Your task to perform on an android device: Play the last video I watched on Youtube Image 0: 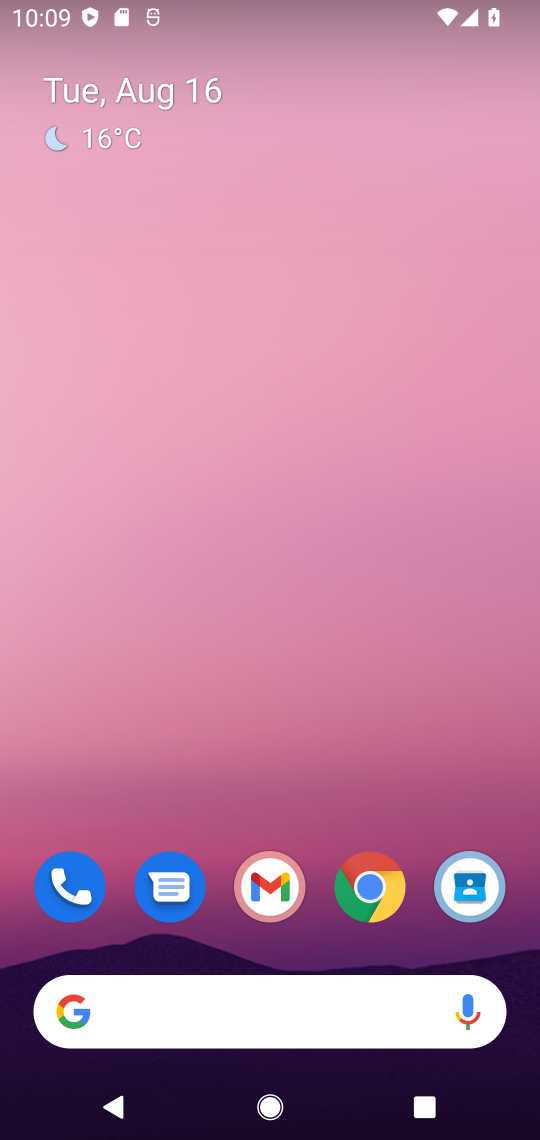
Step 0: drag from (386, 406) to (408, 150)
Your task to perform on an android device: Play the last video I watched on Youtube Image 1: 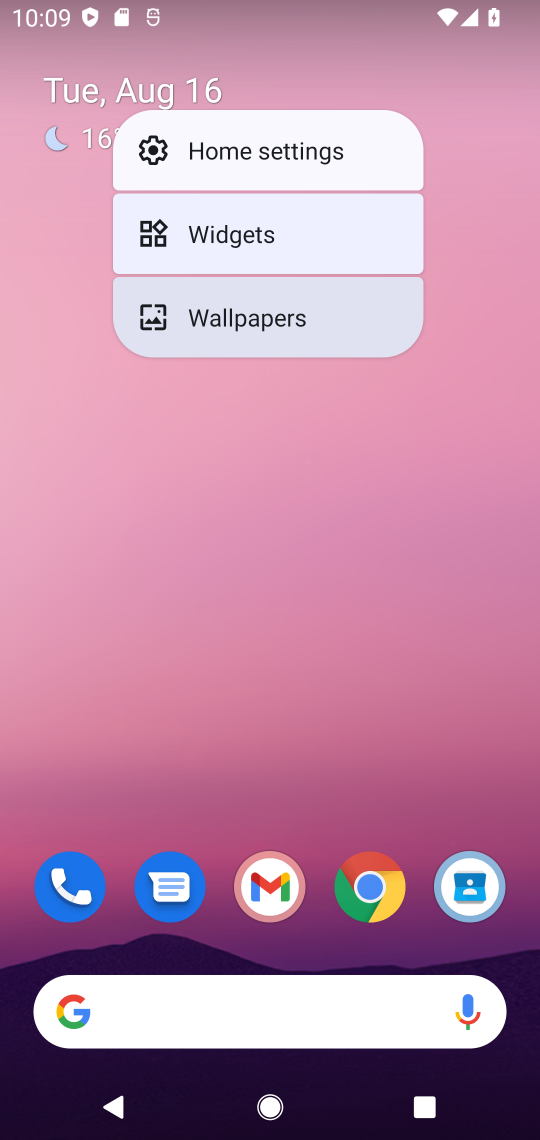
Step 1: click (412, 681)
Your task to perform on an android device: Play the last video I watched on Youtube Image 2: 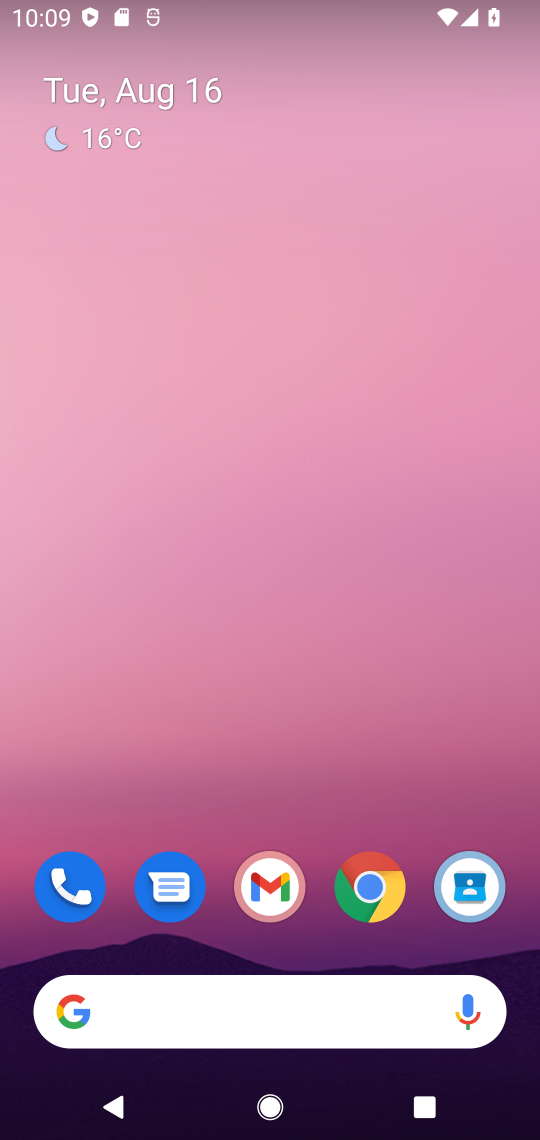
Step 2: drag from (420, 800) to (415, 188)
Your task to perform on an android device: Play the last video I watched on Youtube Image 3: 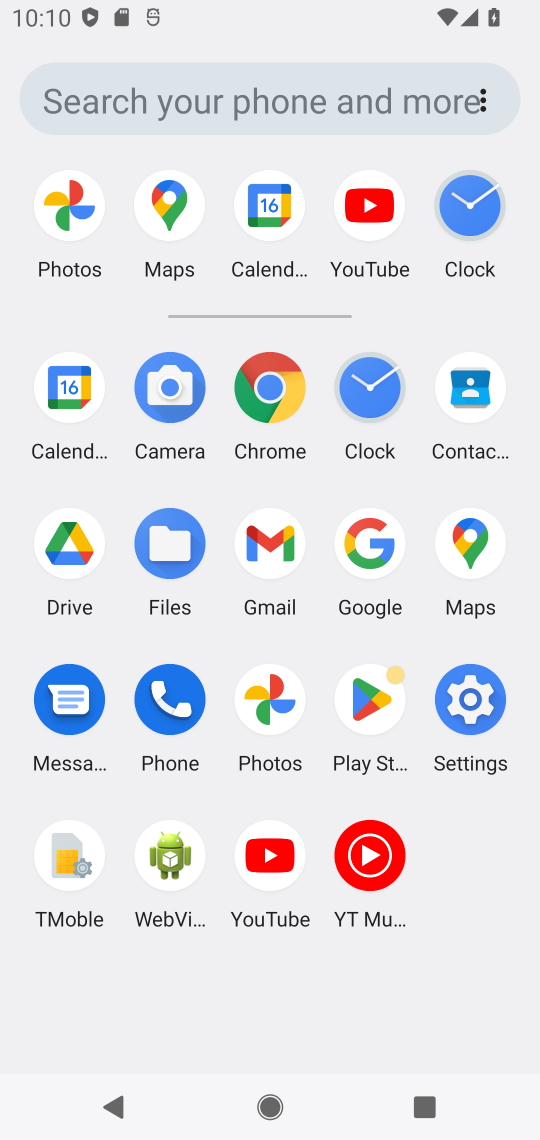
Step 3: click (270, 861)
Your task to perform on an android device: Play the last video I watched on Youtube Image 4: 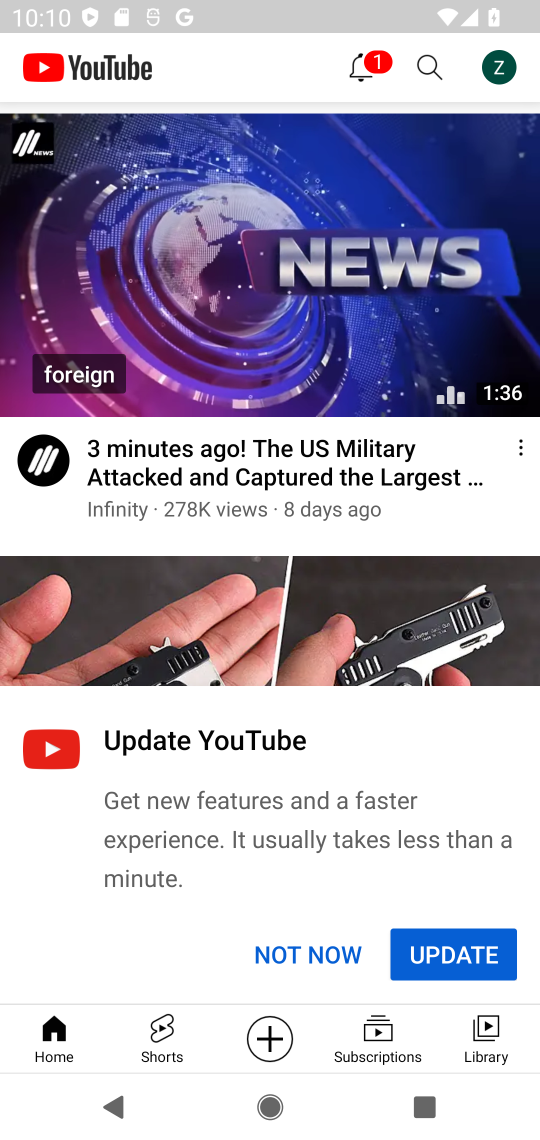
Step 4: click (485, 1045)
Your task to perform on an android device: Play the last video I watched on Youtube Image 5: 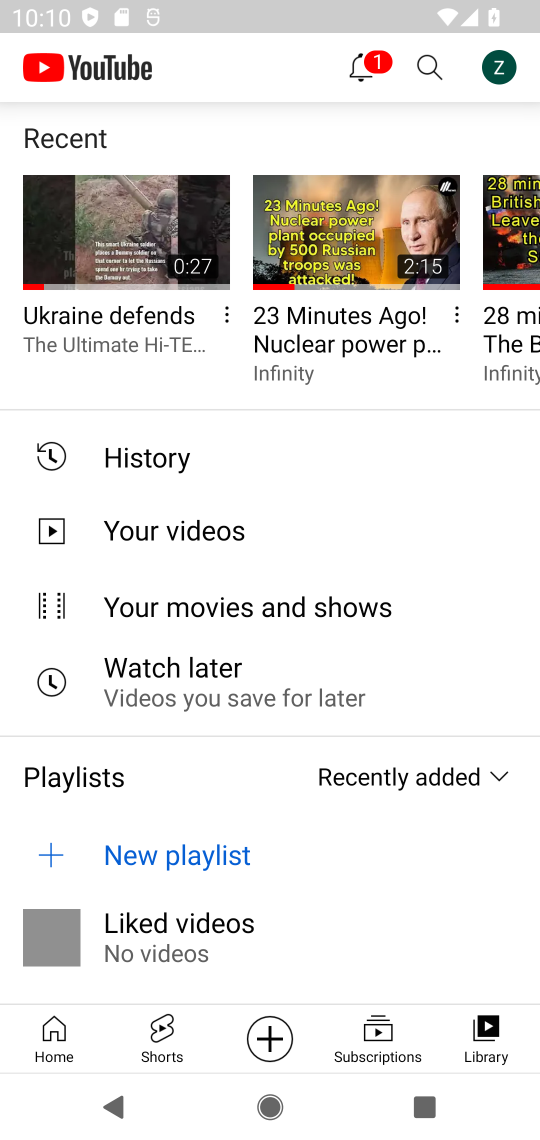
Step 5: click (131, 238)
Your task to perform on an android device: Play the last video I watched on Youtube Image 6: 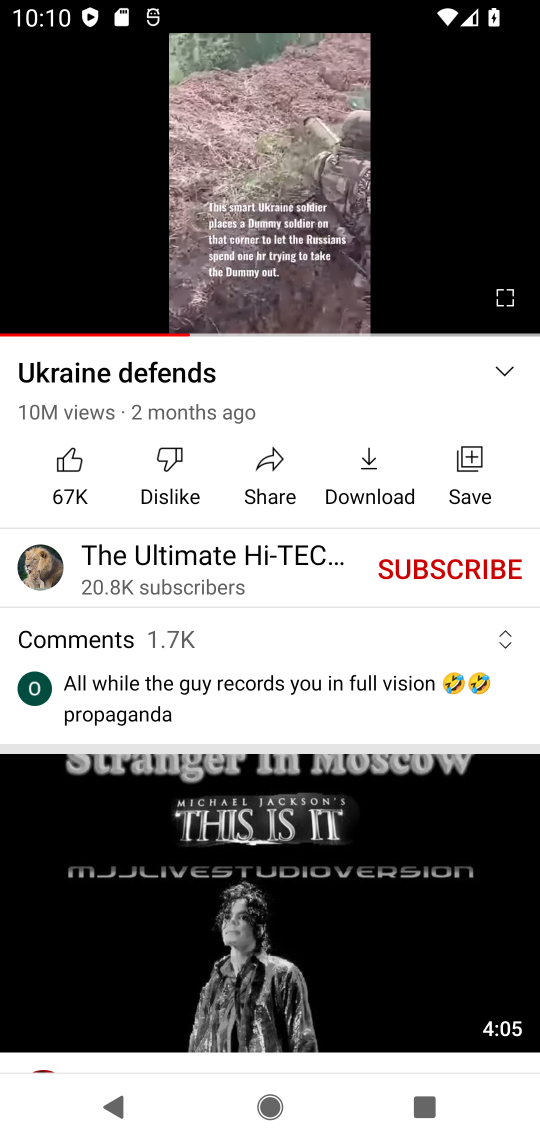
Step 6: task complete